Your task to perform on an android device: open app "DoorDash - Food Delivery" (install if not already installed) Image 0: 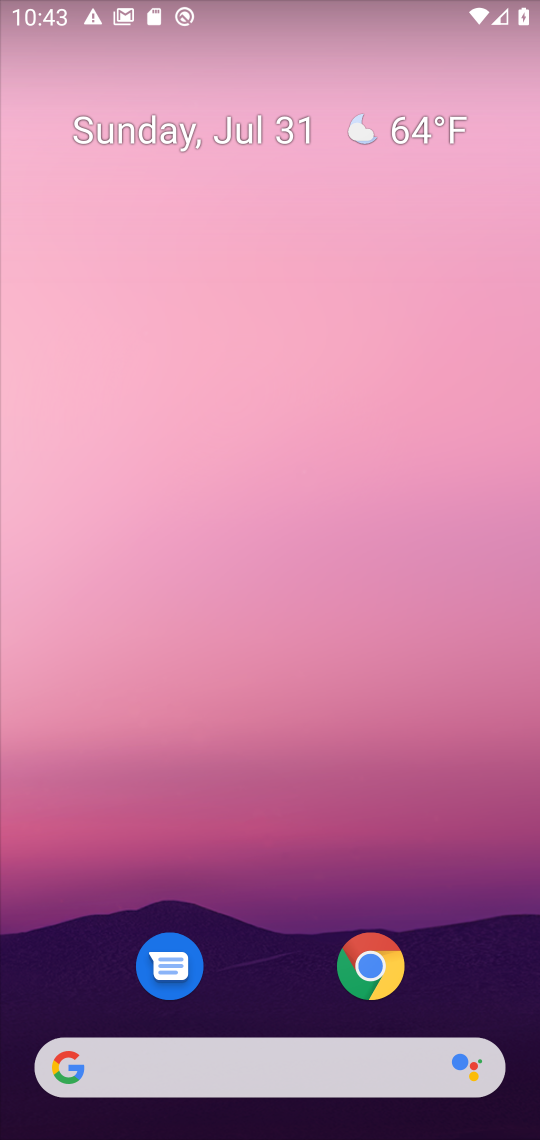
Step 0: drag from (266, 980) to (230, 55)
Your task to perform on an android device: open app "DoorDash - Food Delivery" (install if not already installed) Image 1: 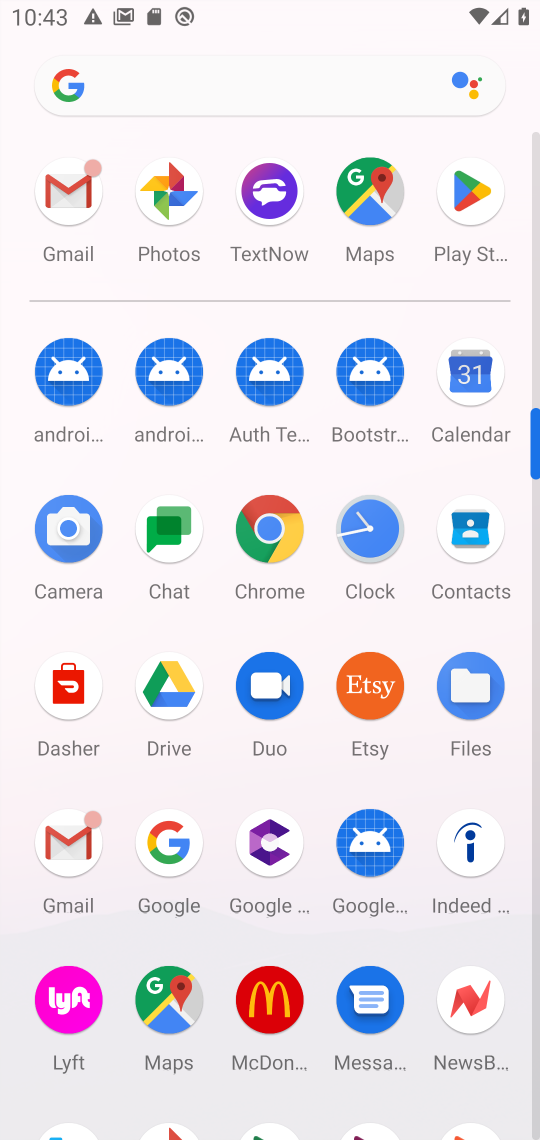
Step 1: click (478, 223)
Your task to perform on an android device: open app "DoorDash - Food Delivery" (install if not already installed) Image 2: 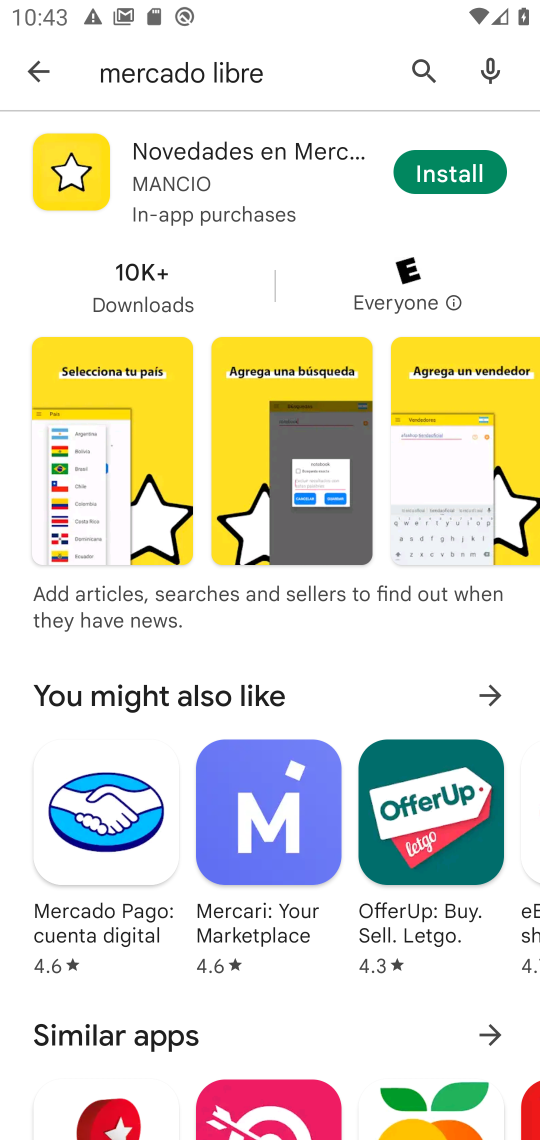
Step 2: click (318, 73)
Your task to perform on an android device: open app "DoorDash - Food Delivery" (install if not already installed) Image 3: 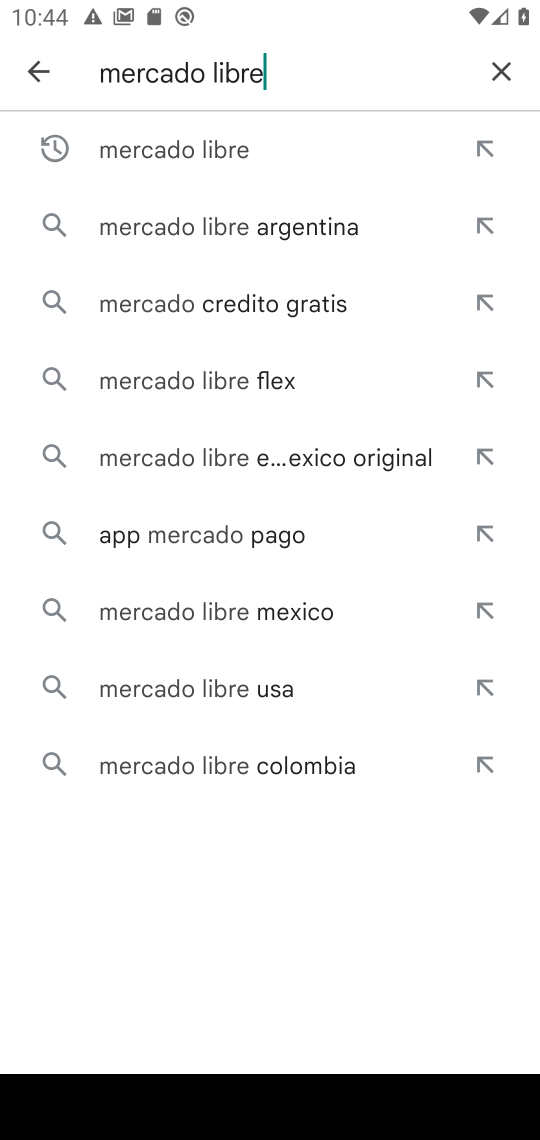
Step 3: click (499, 64)
Your task to perform on an android device: open app "DoorDash - Food Delivery" (install if not already installed) Image 4: 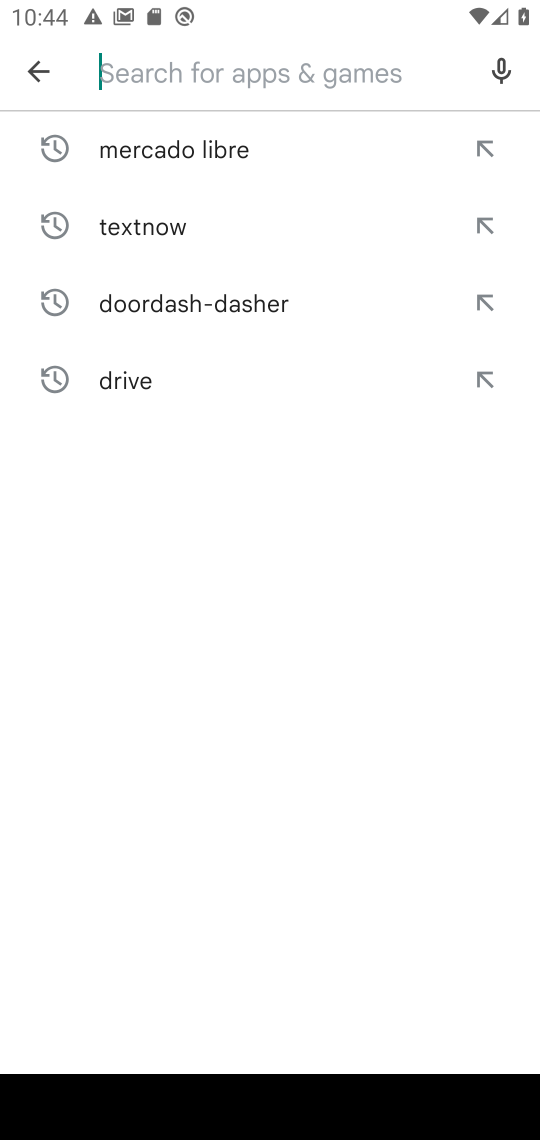
Step 4: type "doordasher"
Your task to perform on an android device: open app "DoorDash - Food Delivery" (install if not already installed) Image 5: 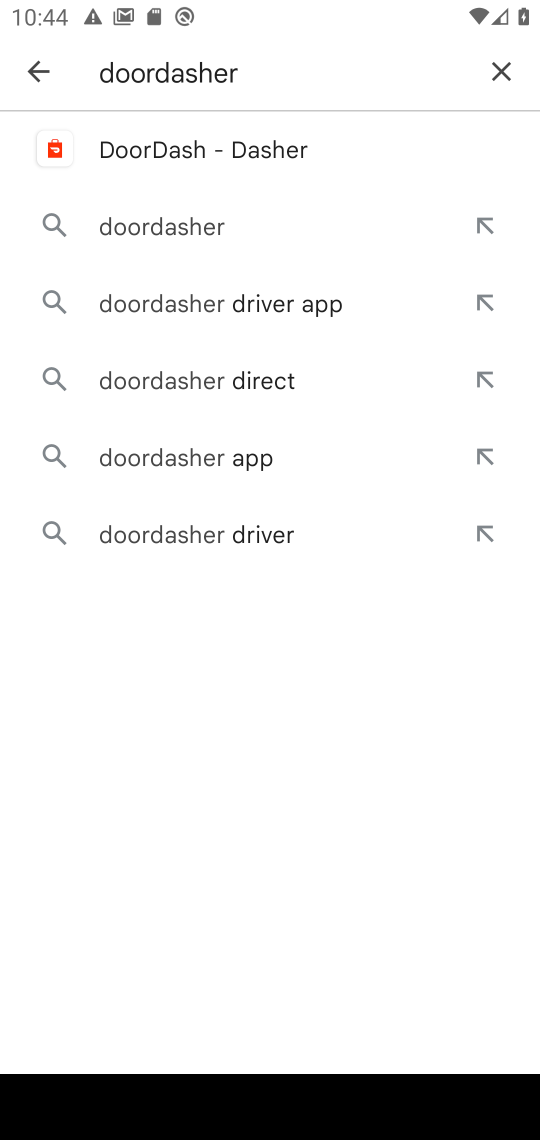
Step 5: click (210, 235)
Your task to perform on an android device: open app "DoorDash - Food Delivery" (install if not already installed) Image 6: 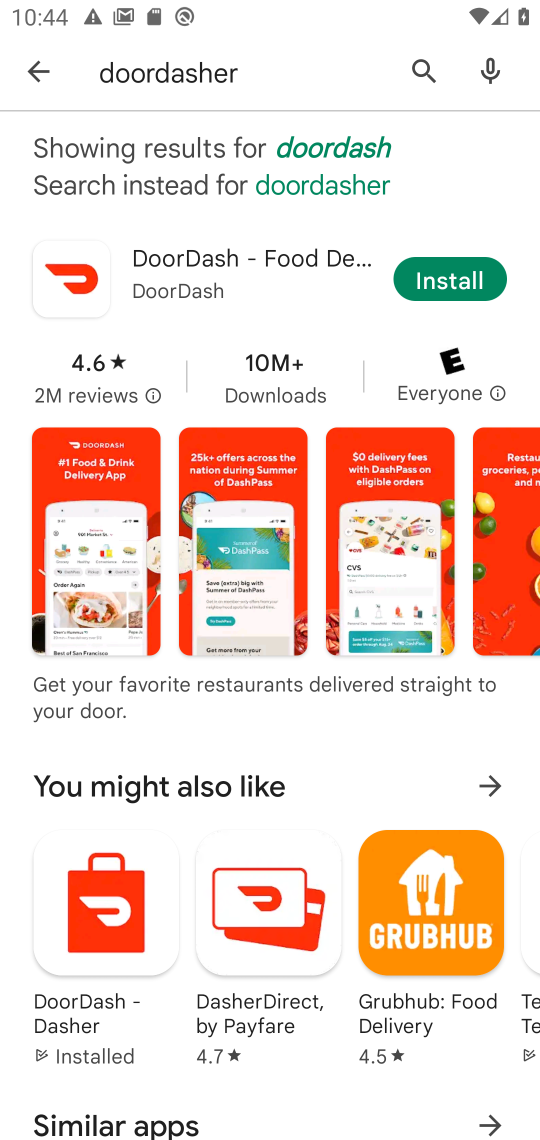
Step 6: click (419, 266)
Your task to perform on an android device: open app "DoorDash - Food Delivery" (install if not already installed) Image 7: 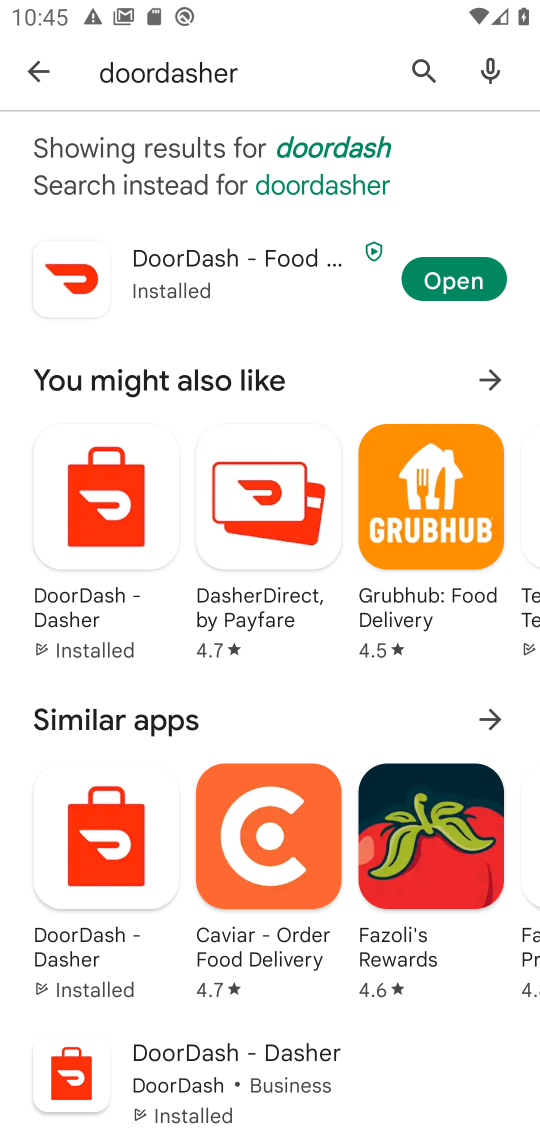
Step 7: click (441, 284)
Your task to perform on an android device: open app "DoorDash - Food Delivery" (install if not already installed) Image 8: 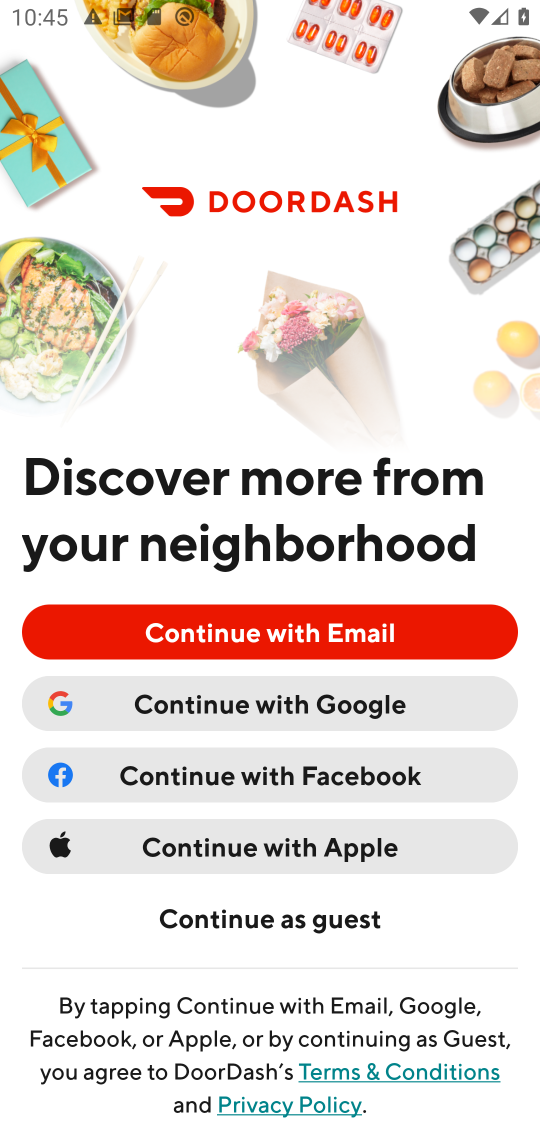
Step 8: click (257, 705)
Your task to perform on an android device: open app "DoorDash - Food Delivery" (install if not already installed) Image 9: 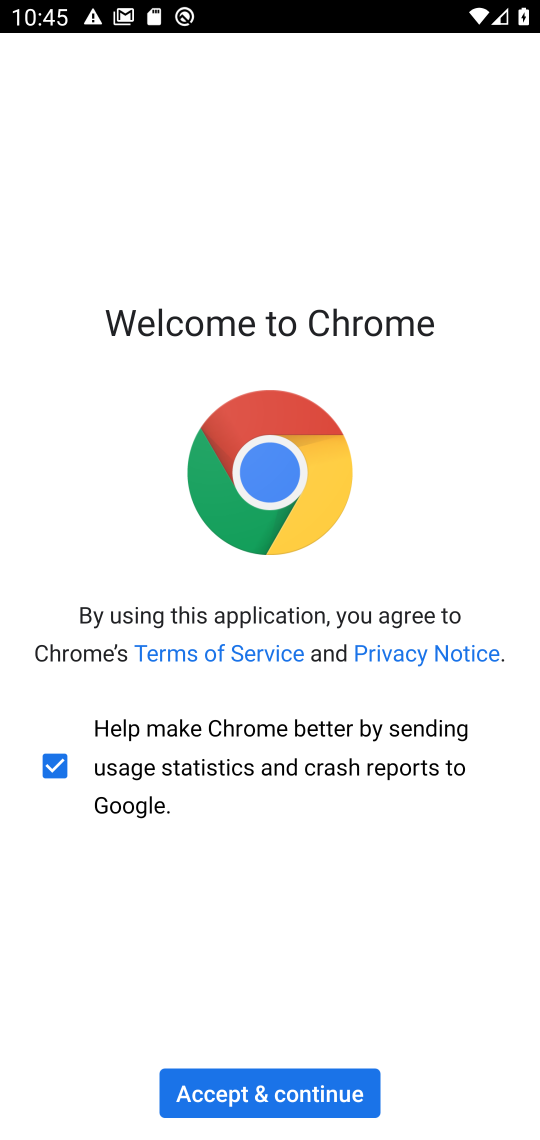
Step 9: click (307, 1096)
Your task to perform on an android device: open app "DoorDash - Food Delivery" (install if not already installed) Image 10: 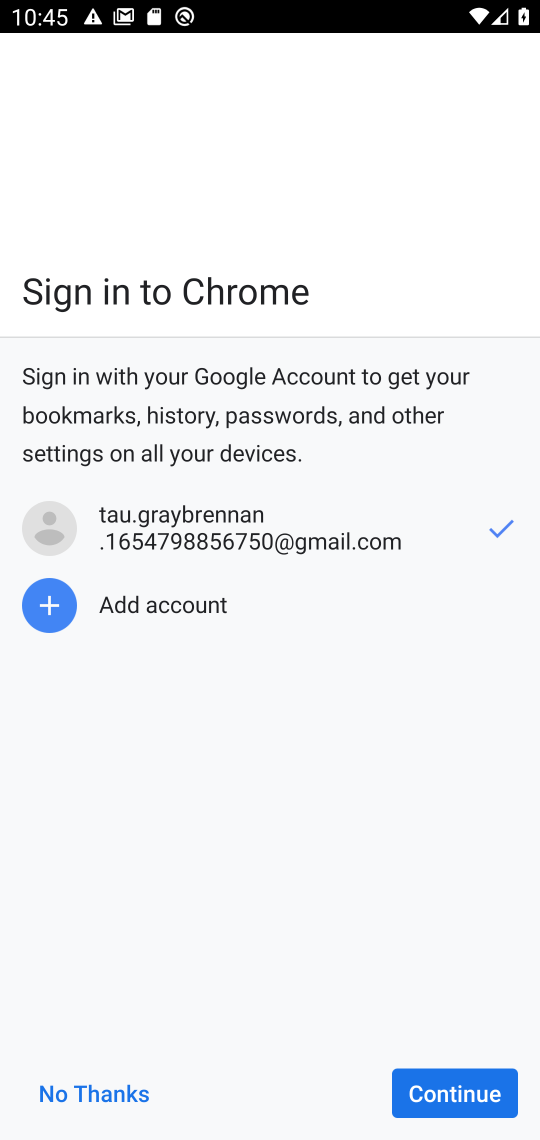
Step 10: click (459, 1083)
Your task to perform on an android device: open app "DoorDash - Food Delivery" (install if not already installed) Image 11: 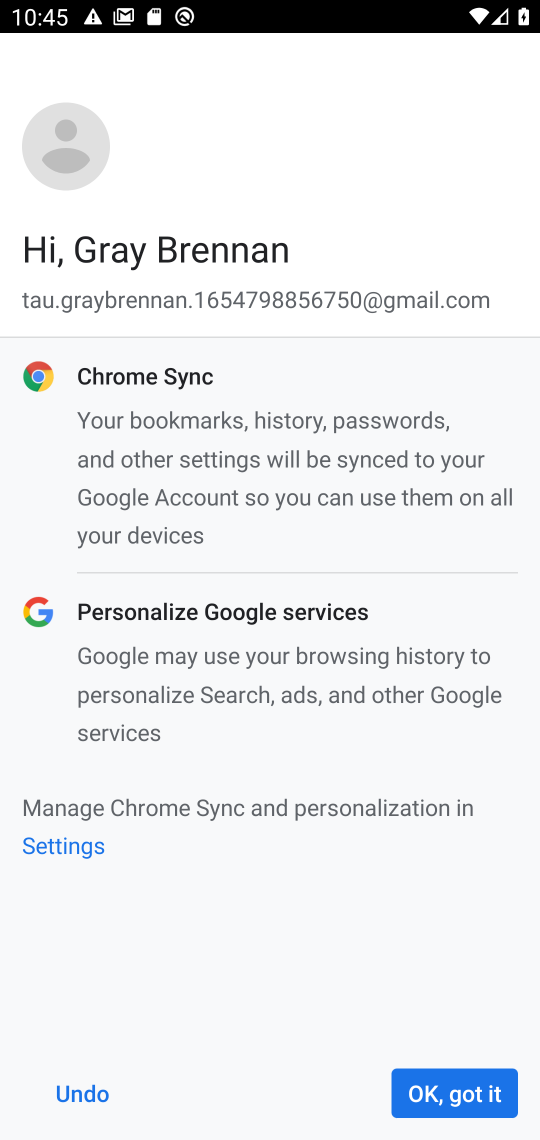
Step 11: click (453, 1083)
Your task to perform on an android device: open app "DoorDash - Food Delivery" (install if not already installed) Image 12: 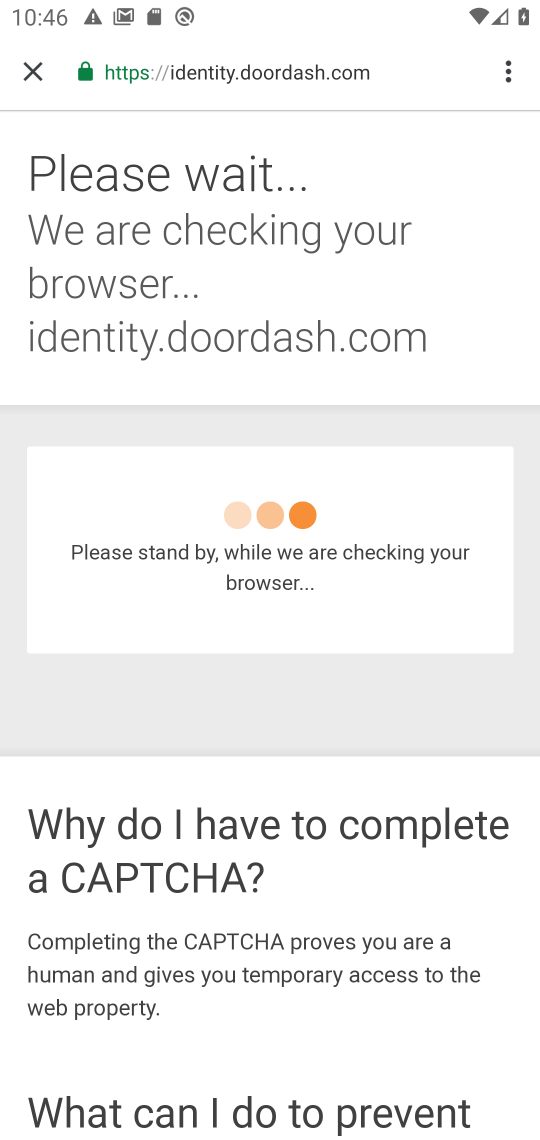
Step 12: task complete